Your task to perform on an android device: Set the phone to "Do not disturb". Image 0: 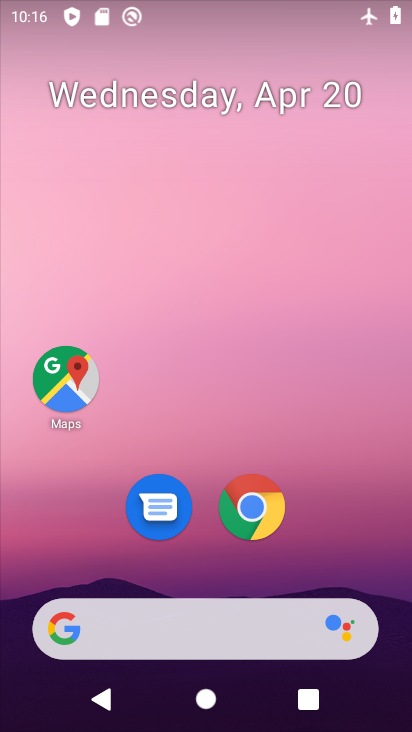
Step 0: drag from (228, 0) to (239, 369)
Your task to perform on an android device: Set the phone to "Do not disturb". Image 1: 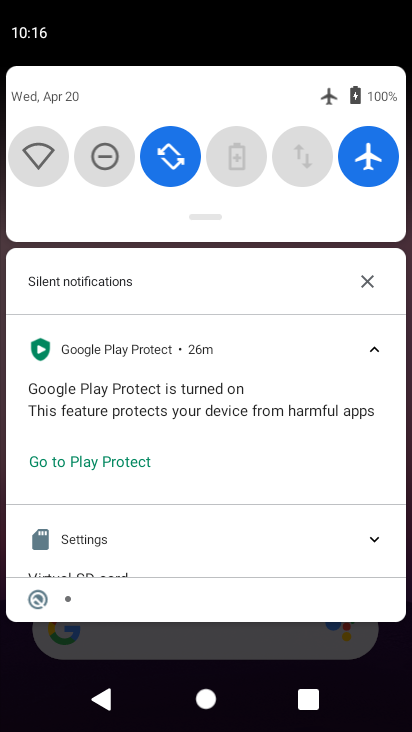
Step 1: click (108, 154)
Your task to perform on an android device: Set the phone to "Do not disturb". Image 2: 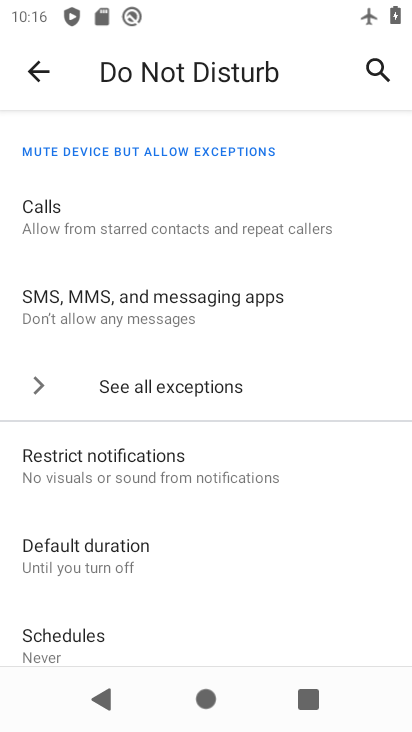
Step 2: task complete